Your task to perform on an android device: Is it going to rain today? Image 0: 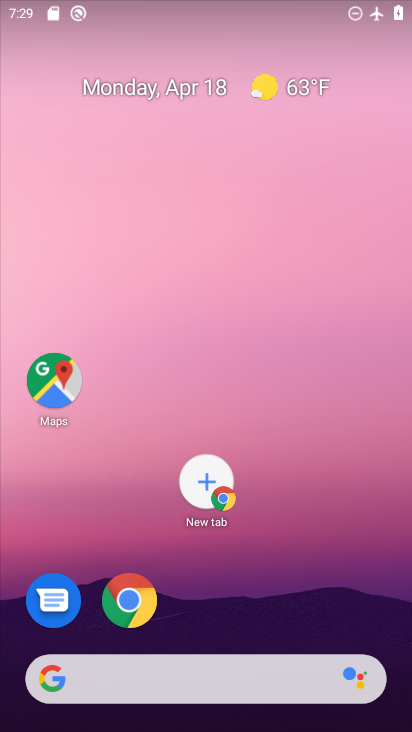
Step 0: click (267, 90)
Your task to perform on an android device: Is it going to rain today? Image 1: 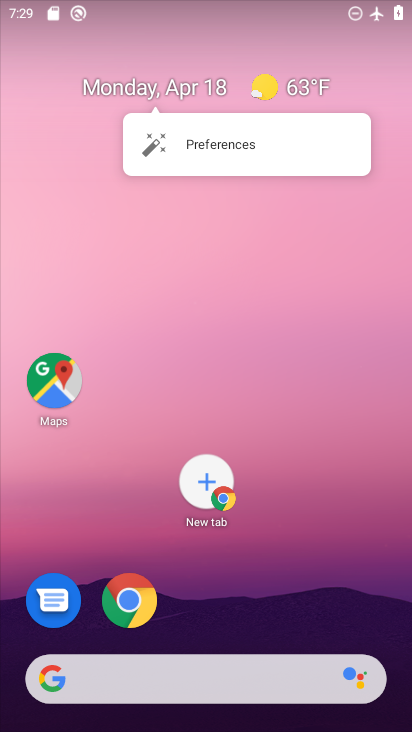
Step 1: click (263, 86)
Your task to perform on an android device: Is it going to rain today? Image 2: 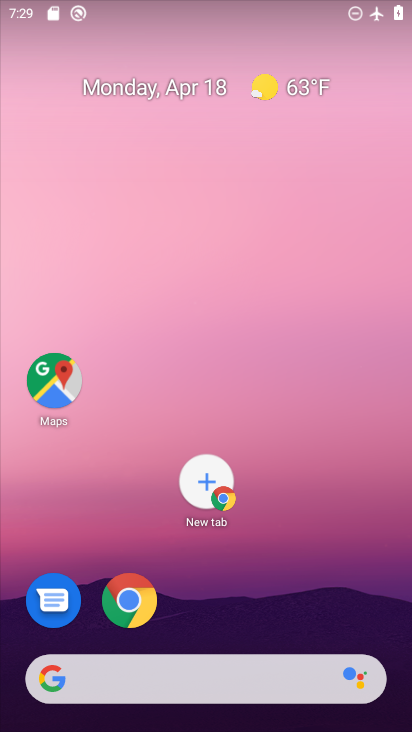
Step 2: click (270, 83)
Your task to perform on an android device: Is it going to rain today? Image 3: 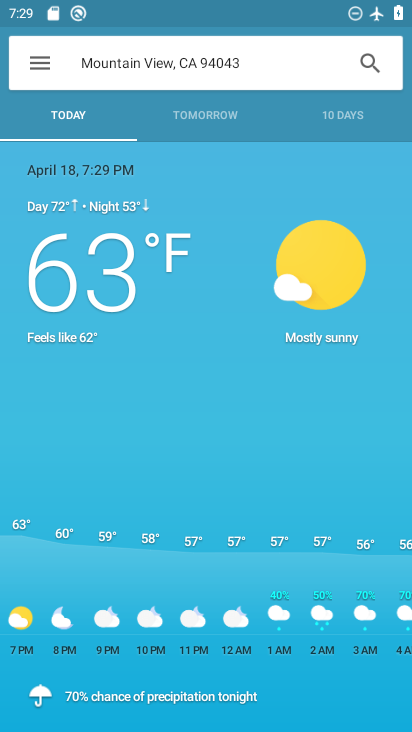
Step 3: task complete